Your task to perform on an android device: find which apps use the phone's location Image 0: 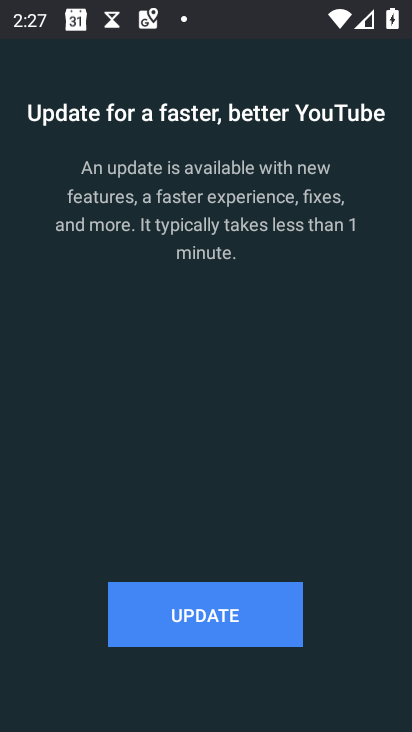
Step 0: press back button
Your task to perform on an android device: find which apps use the phone's location Image 1: 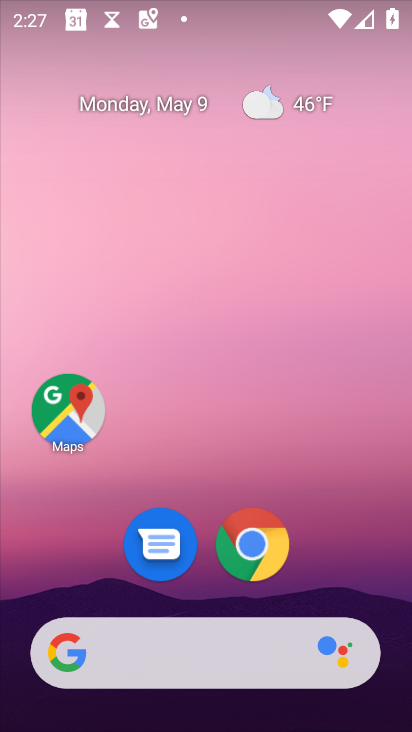
Step 1: drag from (346, 541) to (119, 151)
Your task to perform on an android device: find which apps use the phone's location Image 2: 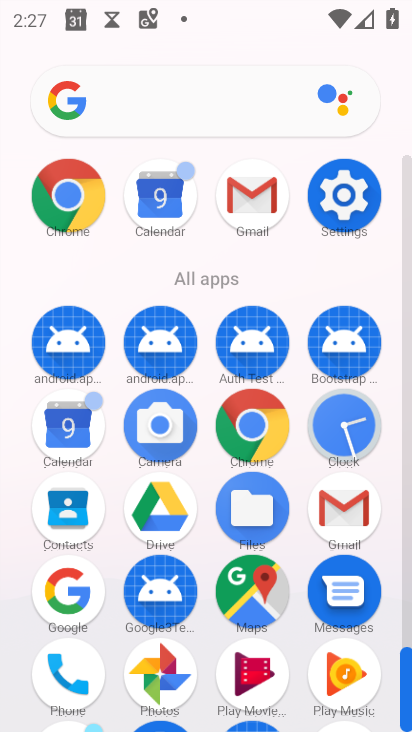
Step 2: click (342, 214)
Your task to perform on an android device: find which apps use the phone's location Image 3: 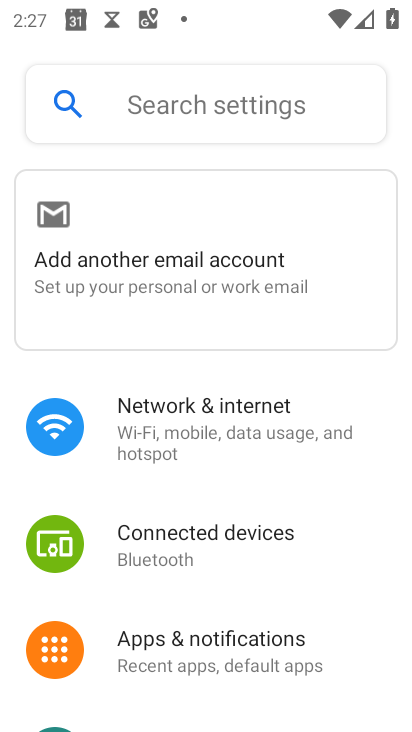
Step 3: drag from (243, 637) to (263, 263)
Your task to perform on an android device: find which apps use the phone's location Image 4: 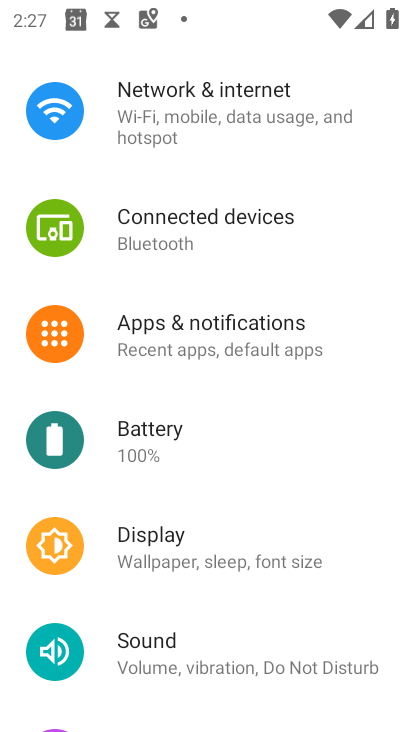
Step 4: drag from (207, 615) to (174, 213)
Your task to perform on an android device: find which apps use the phone's location Image 5: 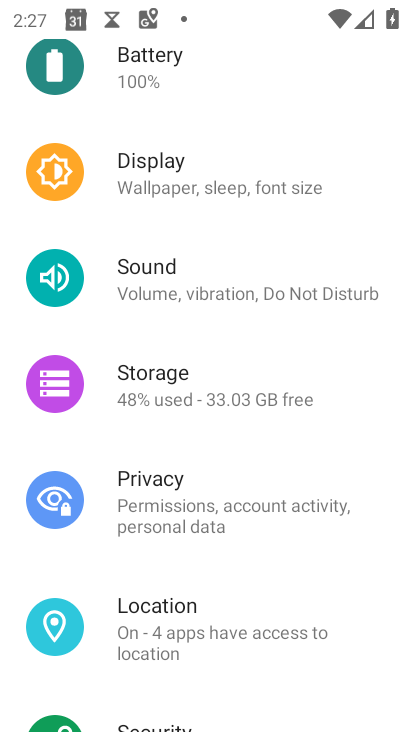
Step 5: click (157, 627)
Your task to perform on an android device: find which apps use the phone's location Image 6: 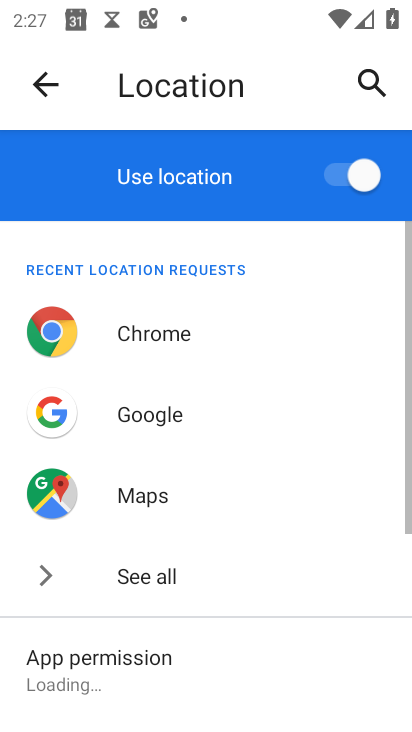
Step 6: drag from (157, 627) to (180, 346)
Your task to perform on an android device: find which apps use the phone's location Image 7: 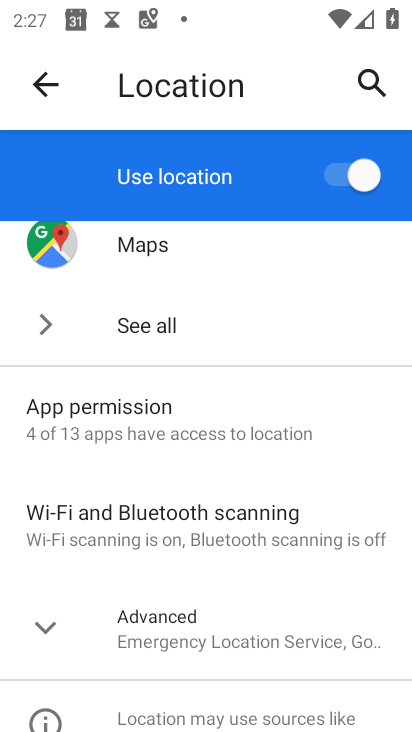
Step 7: click (150, 396)
Your task to perform on an android device: find which apps use the phone's location Image 8: 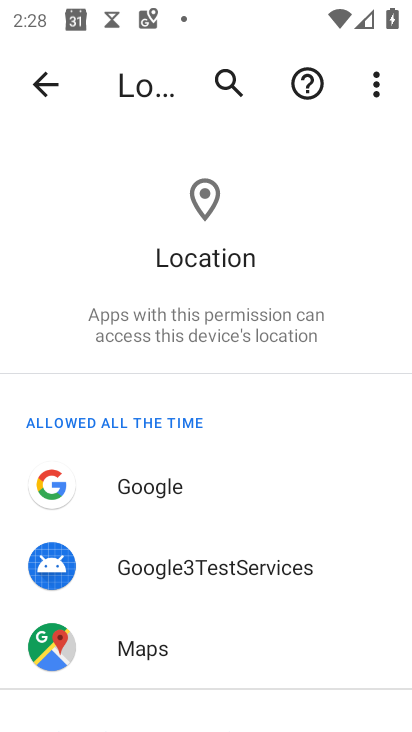
Step 8: task complete